Your task to perform on an android device: change the upload size in google photos Image 0: 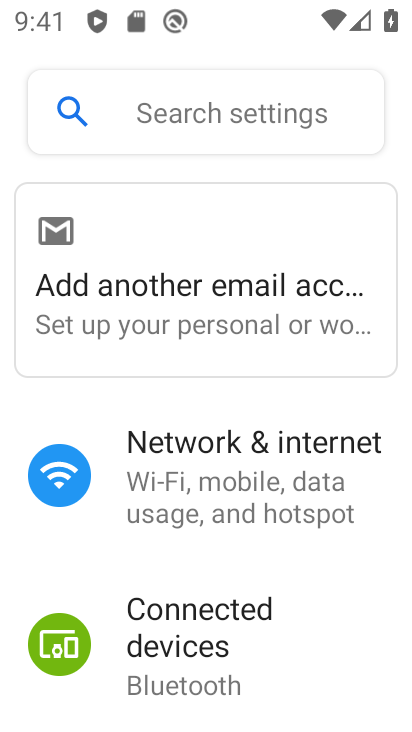
Step 0: drag from (247, 572) to (327, 3)
Your task to perform on an android device: change the upload size in google photos Image 1: 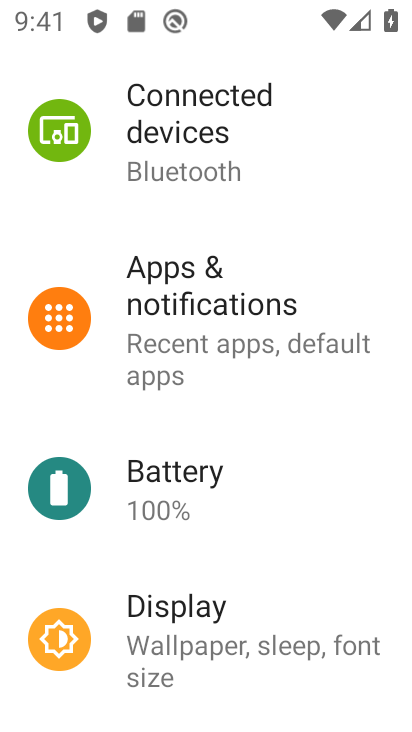
Step 1: press home button
Your task to perform on an android device: change the upload size in google photos Image 2: 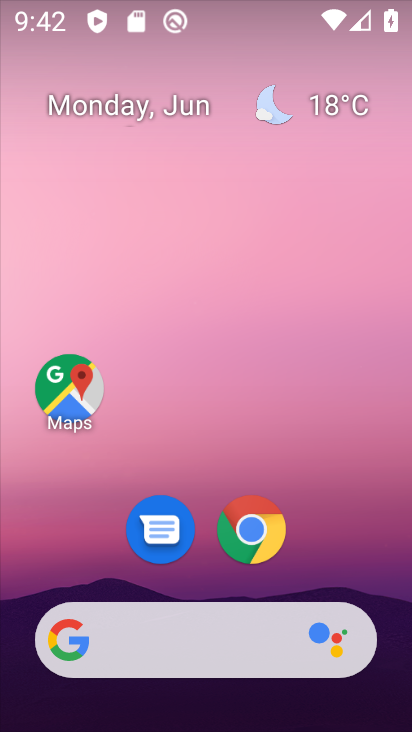
Step 2: drag from (260, 617) to (390, 3)
Your task to perform on an android device: change the upload size in google photos Image 3: 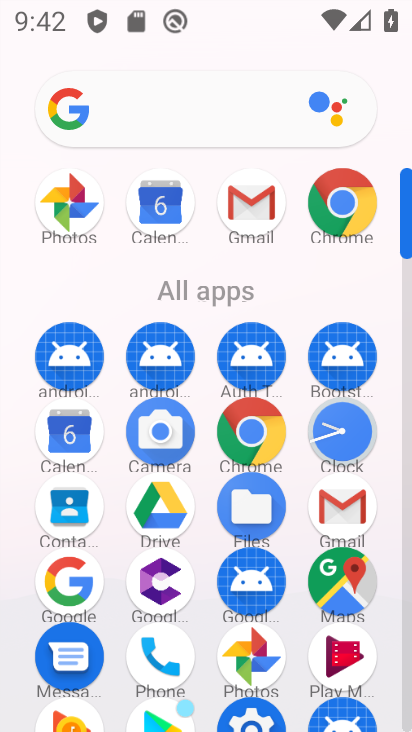
Step 3: click (246, 640)
Your task to perform on an android device: change the upload size in google photos Image 4: 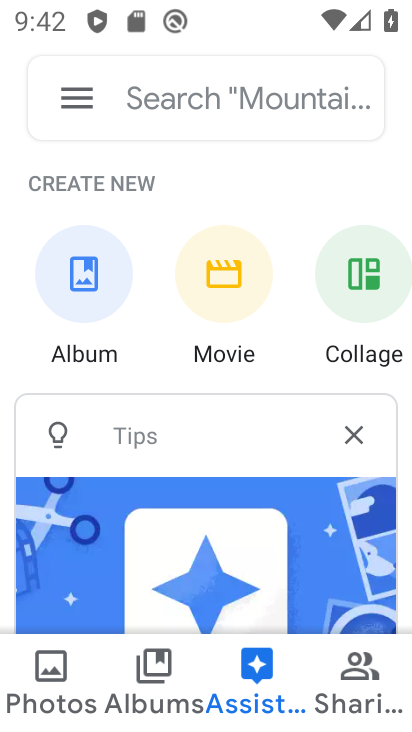
Step 4: click (74, 104)
Your task to perform on an android device: change the upload size in google photos Image 5: 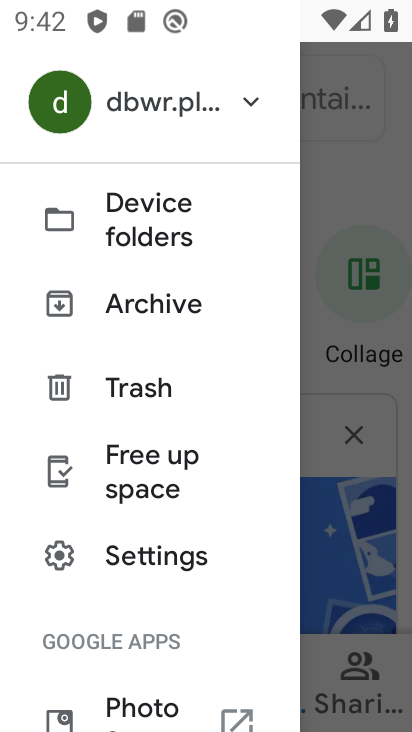
Step 5: click (139, 561)
Your task to perform on an android device: change the upload size in google photos Image 6: 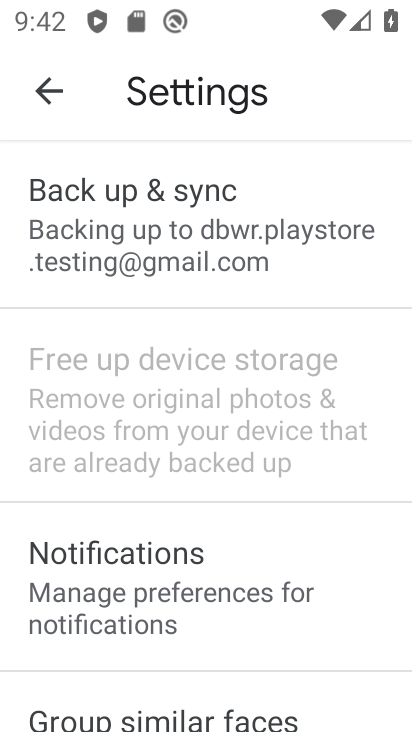
Step 6: click (134, 271)
Your task to perform on an android device: change the upload size in google photos Image 7: 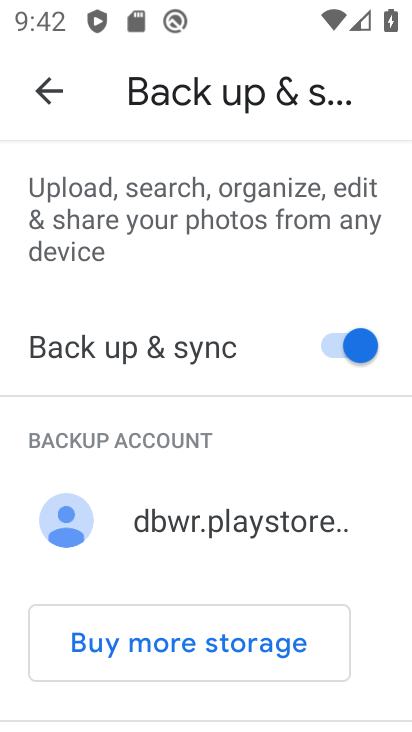
Step 7: drag from (233, 541) to (245, 79)
Your task to perform on an android device: change the upload size in google photos Image 8: 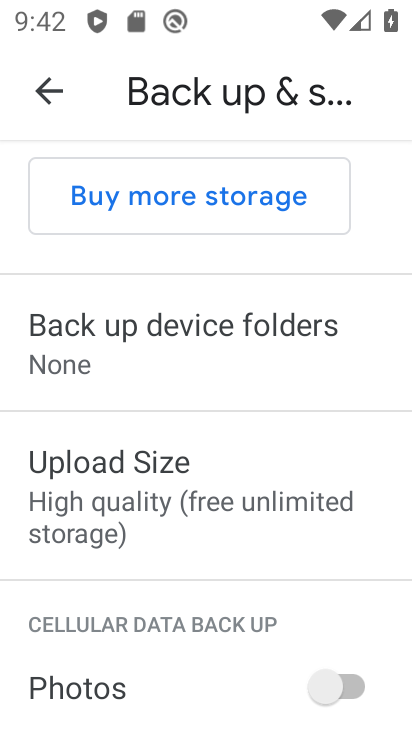
Step 8: click (266, 536)
Your task to perform on an android device: change the upload size in google photos Image 9: 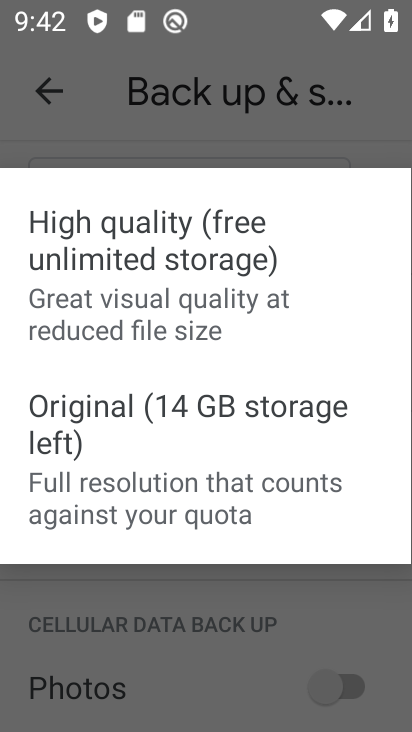
Step 9: click (214, 426)
Your task to perform on an android device: change the upload size in google photos Image 10: 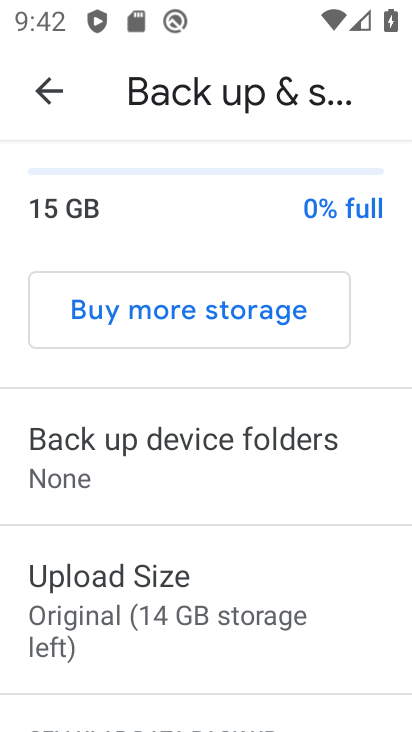
Step 10: task complete